Your task to perform on an android device: delete browsing data in the chrome app Image 0: 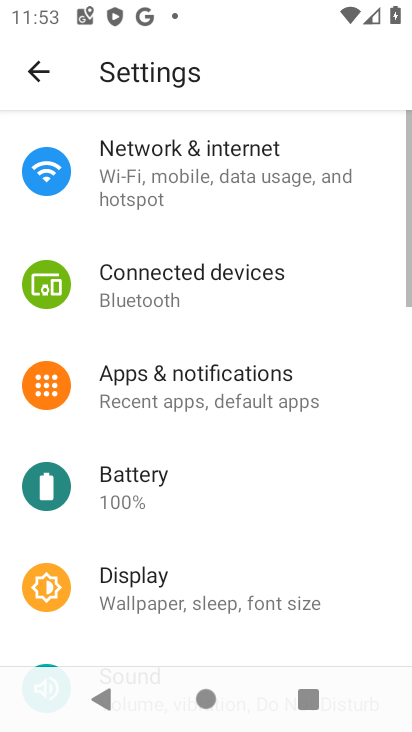
Step 0: press home button
Your task to perform on an android device: delete browsing data in the chrome app Image 1: 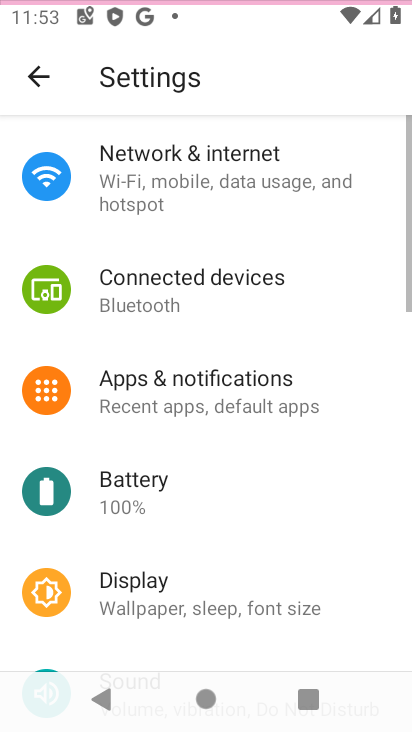
Step 1: press home button
Your task to perform on an android device: delete browsing data in the chrome app Image 2: 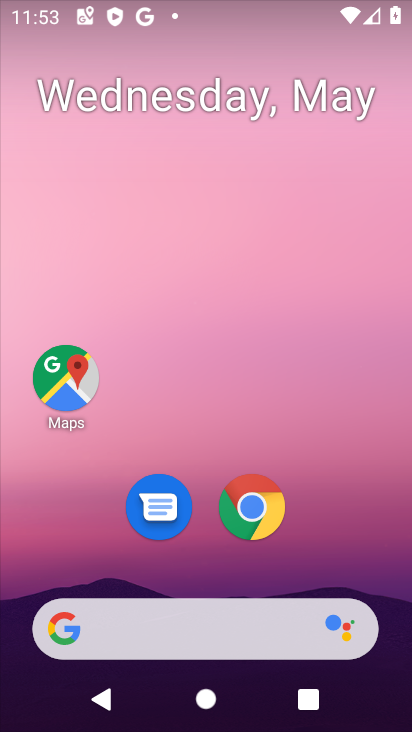
Step 2: click (234, 514)
Your task to perform on an android device: delete browsing data in the chrome app Image 3: 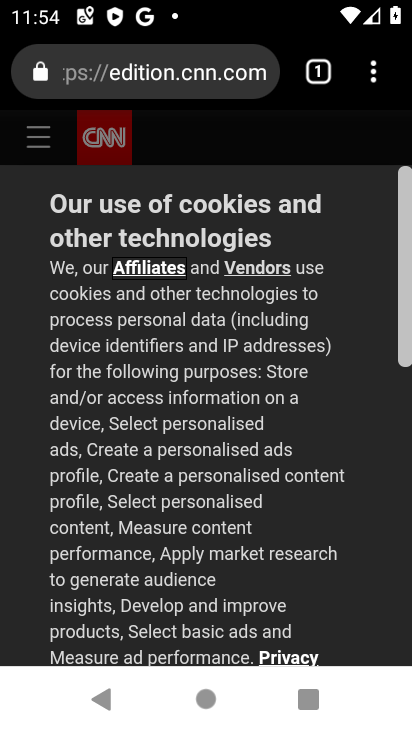
Step 3: drag from (377, 79) to (164, 510)
Your task to perform on an android device: delete browsing data in the chrome app Image 4: 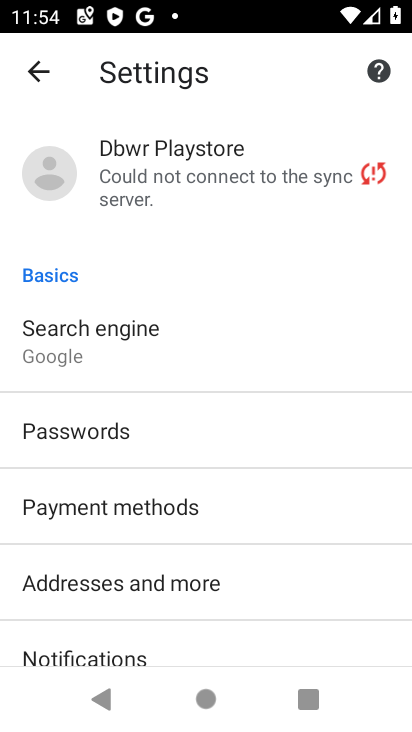
Step 4: drag from (270, 644) to (267, 275)
Your task to perform on an android device: delete browsing data in the chrome app Image 5: 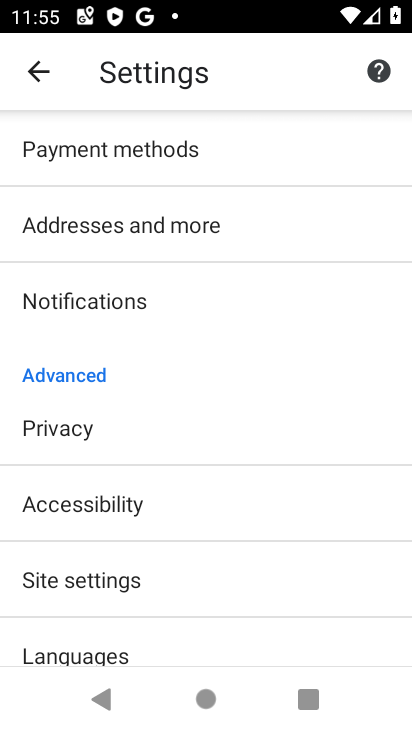
Step 5: drag from (162, 639) to (160, 382)
Your task to perform on an android device: delete browsing data in the chrome app Image 6: 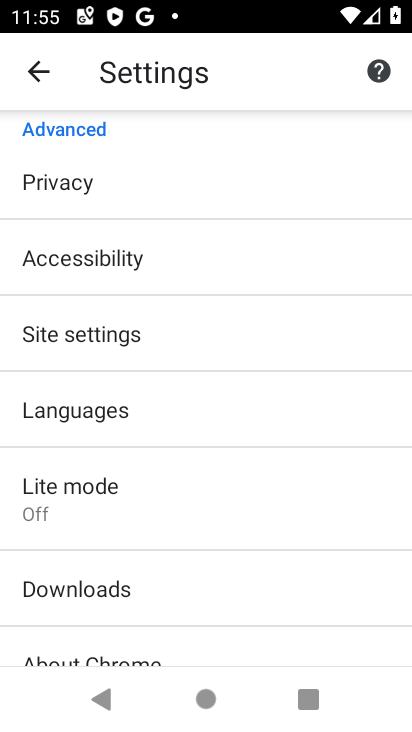
Step 6: drag from (180, 561) to (181, 316)
Your task to perform on an android device: delete browsing data in the chrome app Image 7: 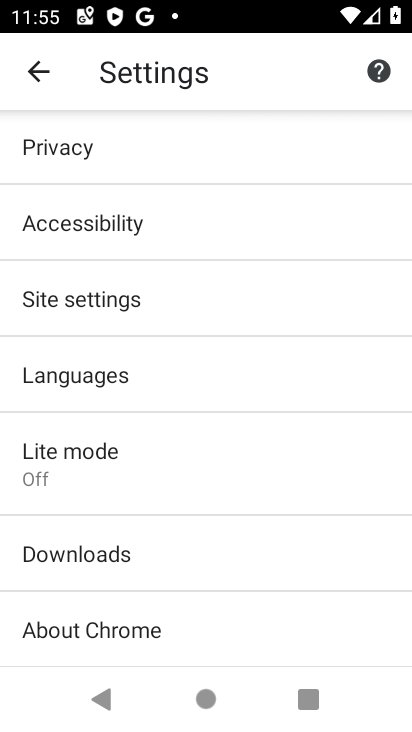
Step 7: click (108, 161)
Your task to perform on an android device: delete browsing data in the chrome app Image 8: 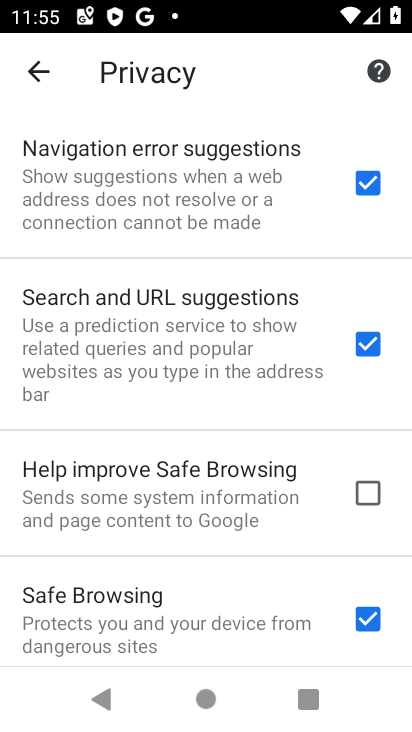
Step 8: drag from (250, 601) to (324, 194)
Your task to perform on an android device: delete browsing data in the chrome app Image 9: 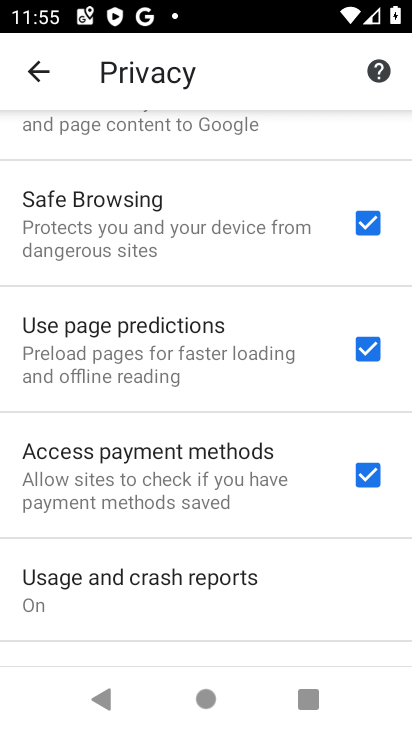
Step 9: drag from (203, 536) to (227, 145)
Your task to perform on an android device: delete browsing data in the chrome app Image 10: 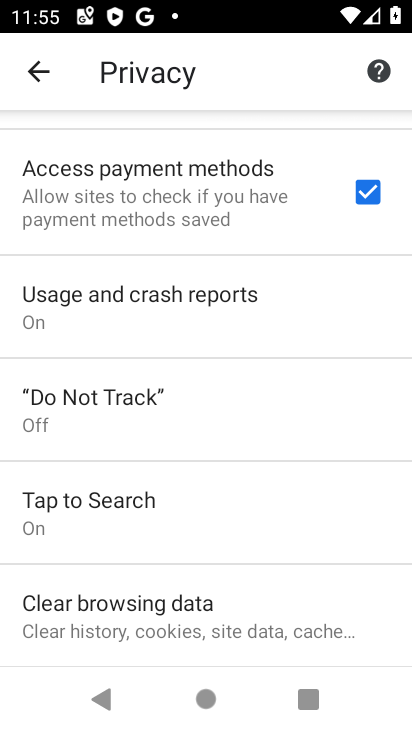
Step 10: click (202, 625)
Your task to perform on an android device: delete browsing data in the chrome app Image 11: 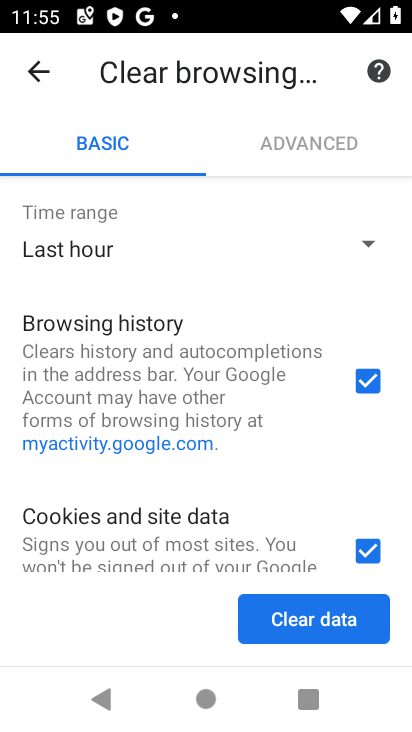
Step 11: click (306, 640)
Your task to perform on an android device: delete browsing data in the chrome app Image 12: 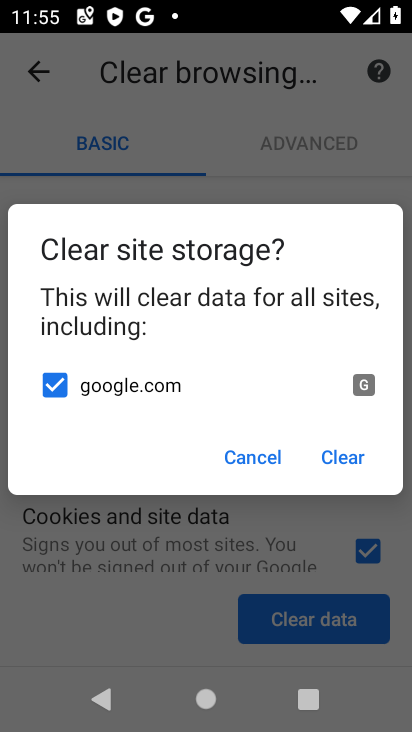
Step 12: click (339, 455)
Your task to perform on an android device: delete browsing data in the chrome app Image 13: 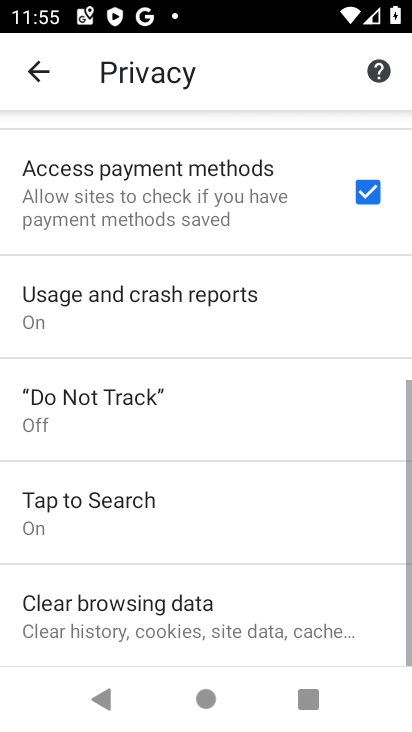
Step 13: task complete